Your task to perform on an android device: Search for "razer deathadder" on newegg.com, select the first entry, and add it to the cart. Image 0: 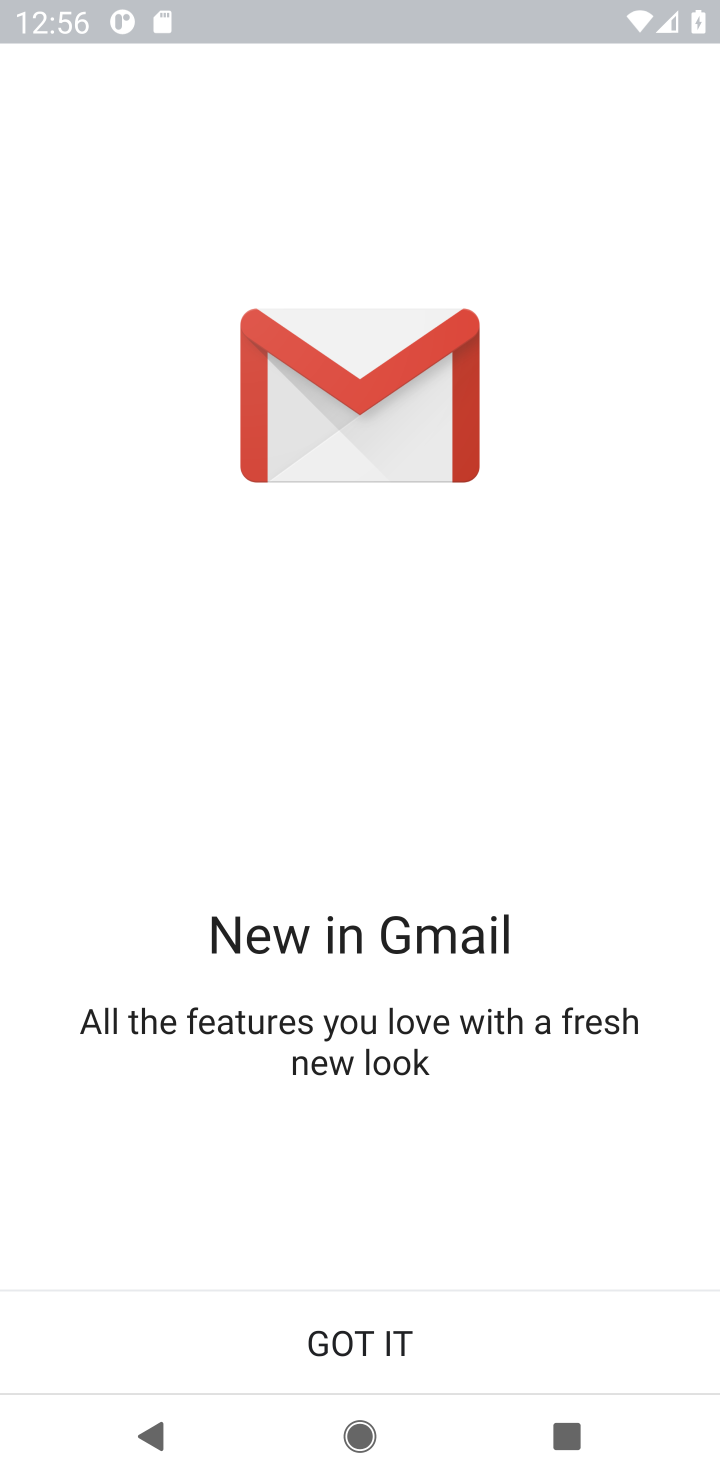
Step 0: press home button
Your task to perform on an android device: Search for "razer deathadder" on newegg.com, select the first entry, and add it to the cart. Image 1: 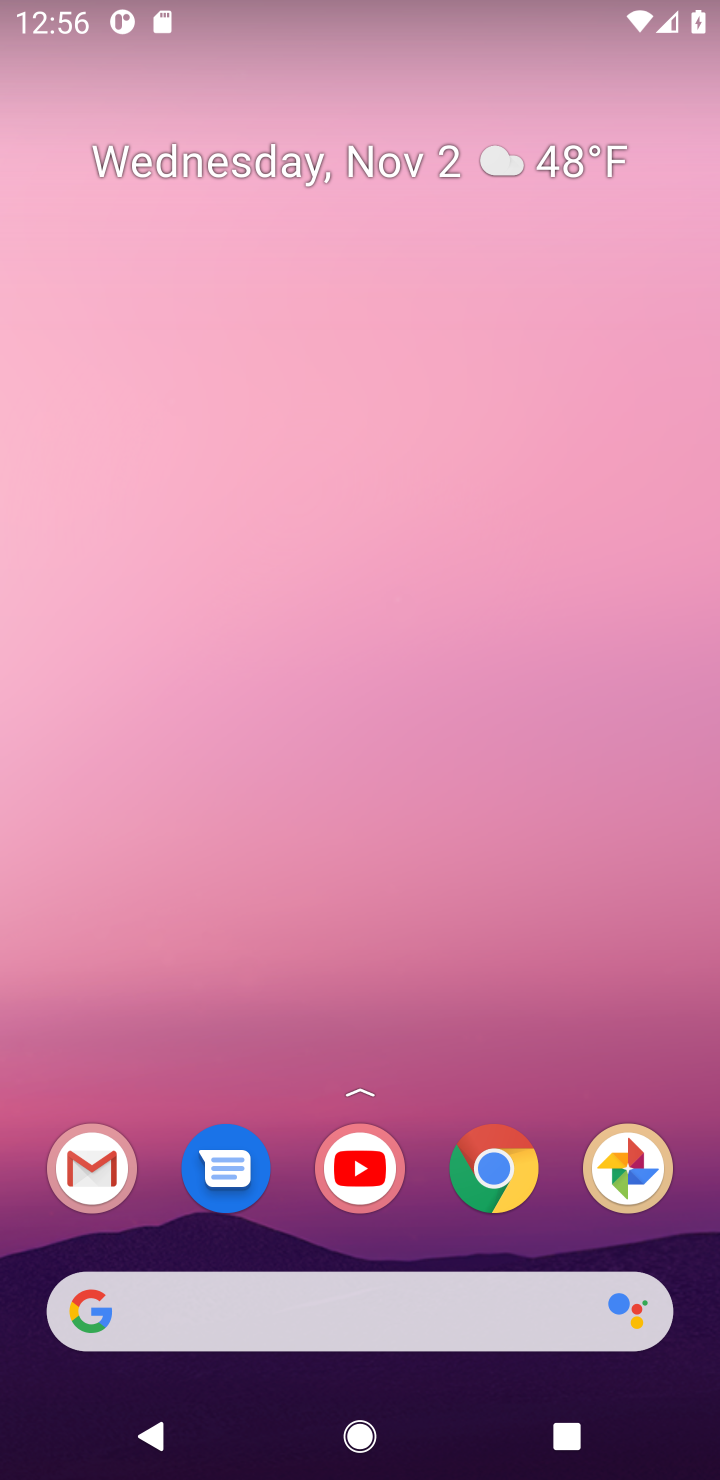
Step 1: click (281, 1296)
Your task to perform on an android device: Search for "razer deathadder" on newegg.com, select the first entry, and add it to the cart. Image 2: 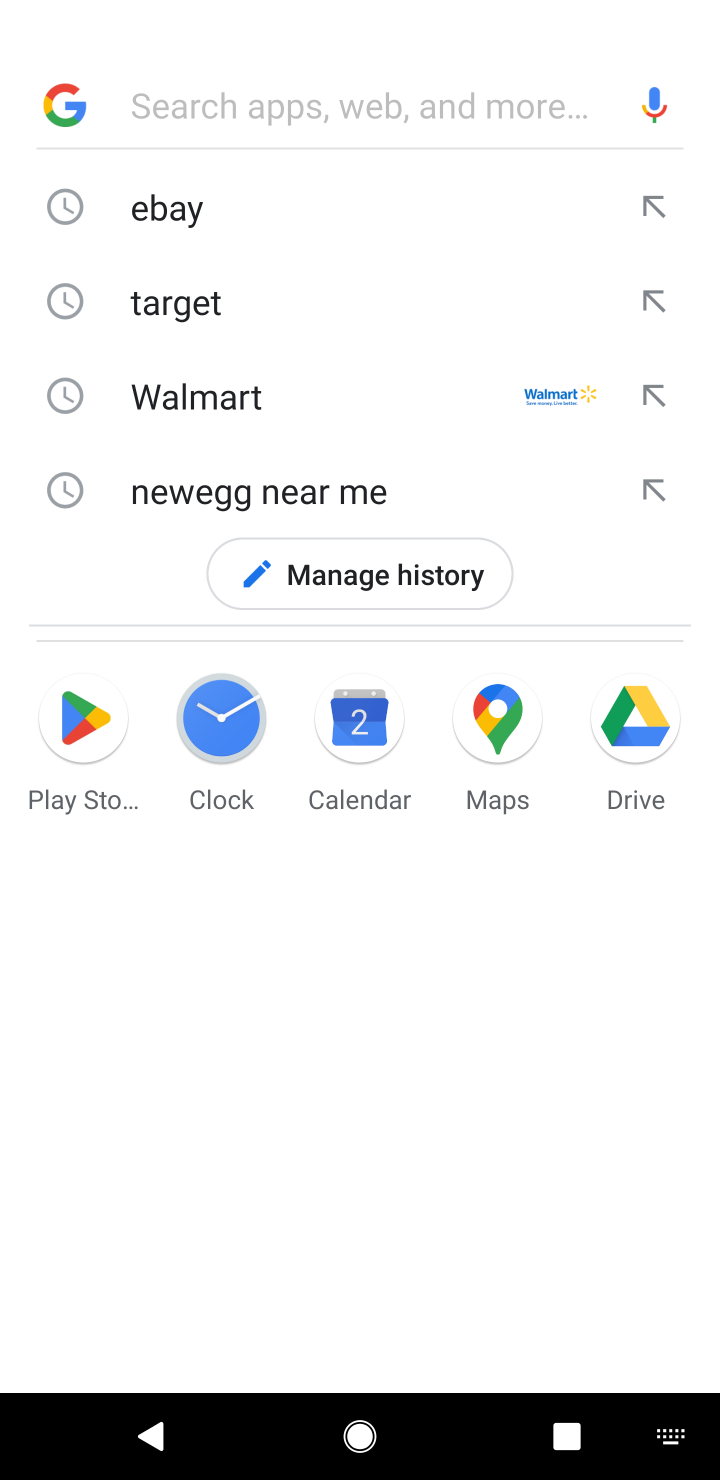
Step 2: type "newegg.com"
Your task to perform on an android device: Search for "razer deathadder" on newegg.com, select the first entry, and add it to the cart. Image 3: 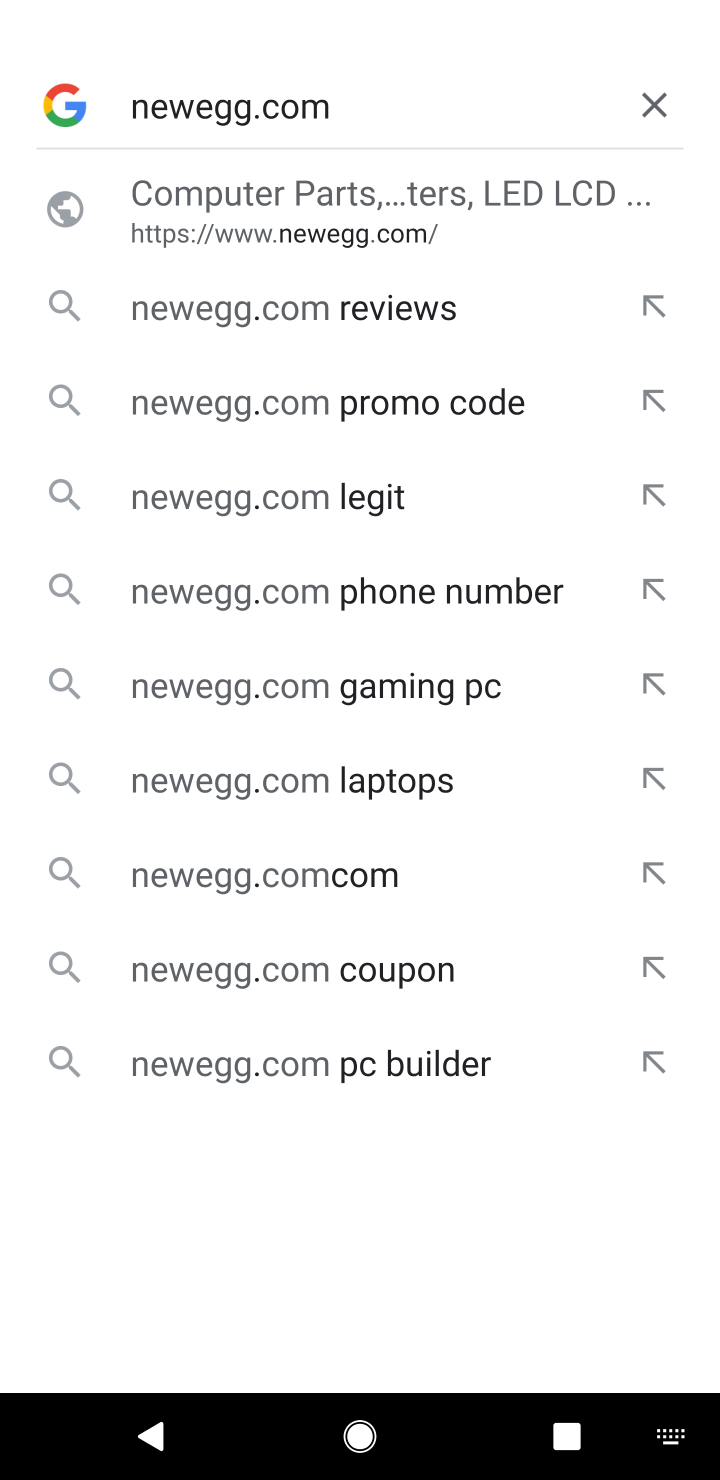
Step 3: click (350, 194)
Your task to perform on an android device: Search for "razer deathadder" on newegg.com, select the first entry, and add it to the cart. Image 4: 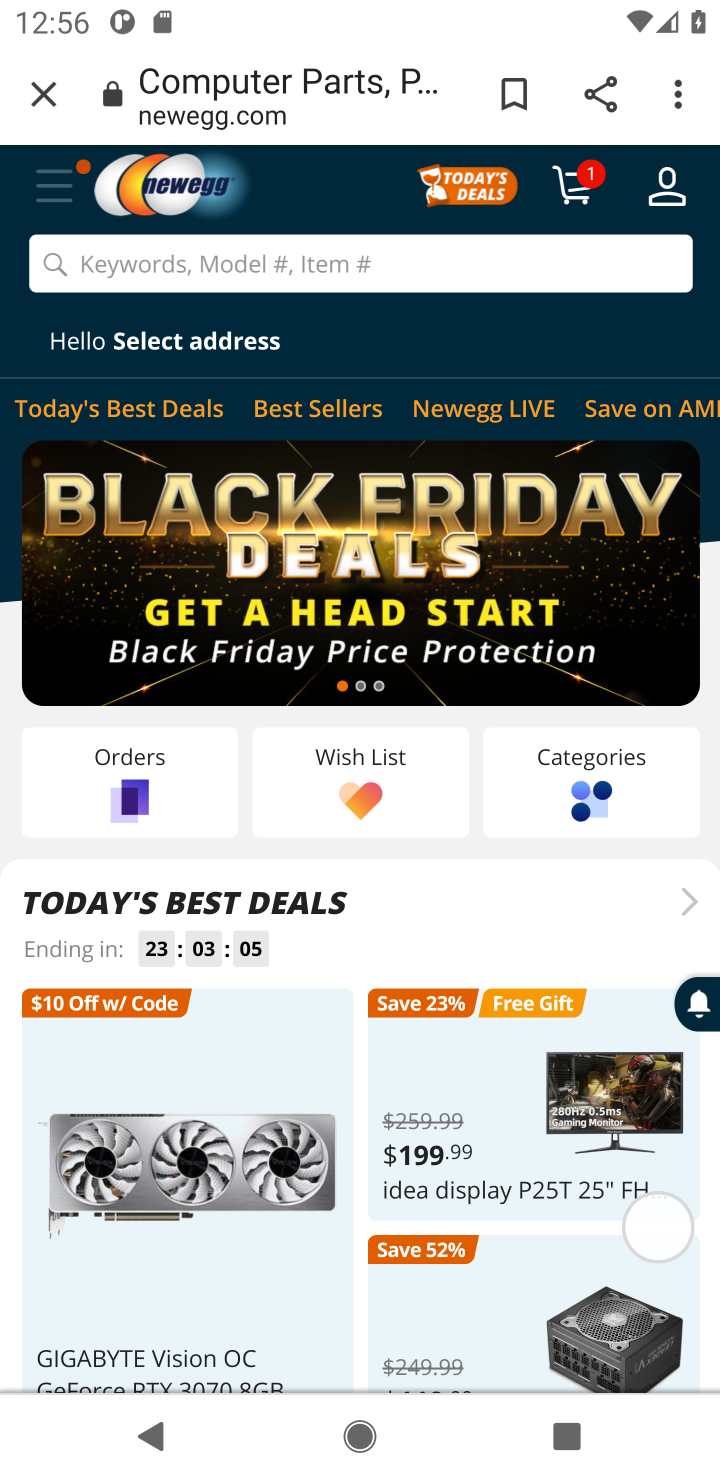
Step 4: click (200, 266)
Your task to perform on an android device: Search for "razer deathadder" on newegg.com, select the first entry, and add it to the cart. Image 5: 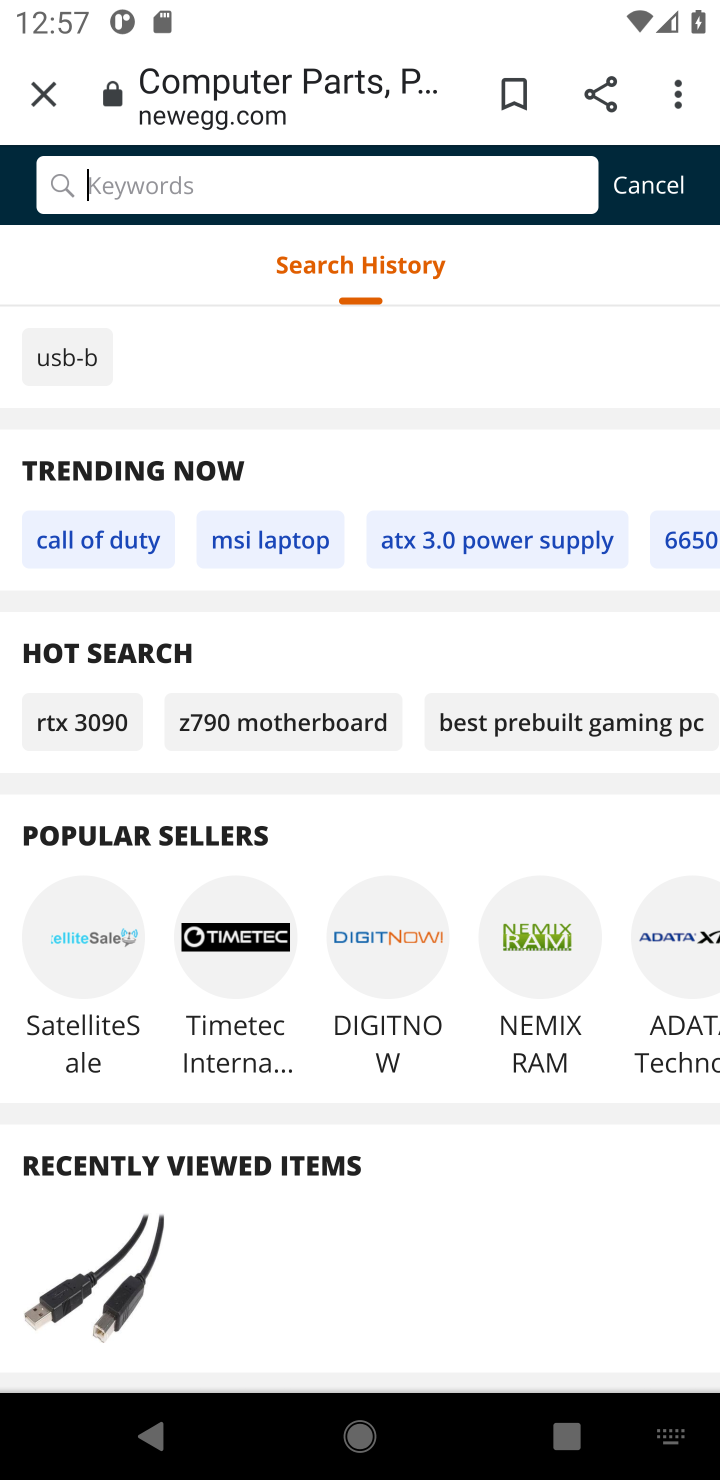
Step 5: type "razer deathadder"
Your task to perform on an android device: Search for "razer deathadder" on newegg.com, select the first entry, and add it to the cart. Image 6: 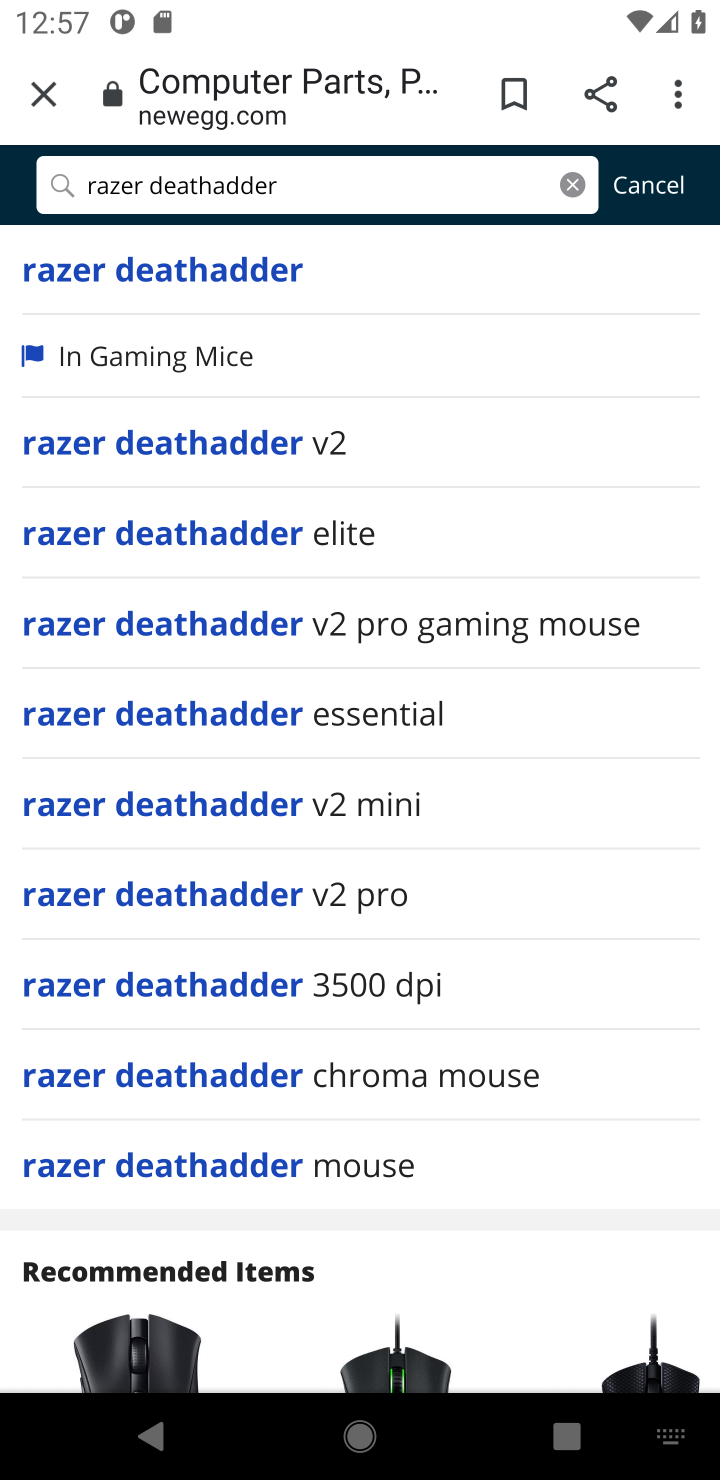
Step 6: click (255, 275)
Your task to perform on an android device: Search for "razer deathadder" on newegg.com, select the first entry, and add it to the cart. Image 7: 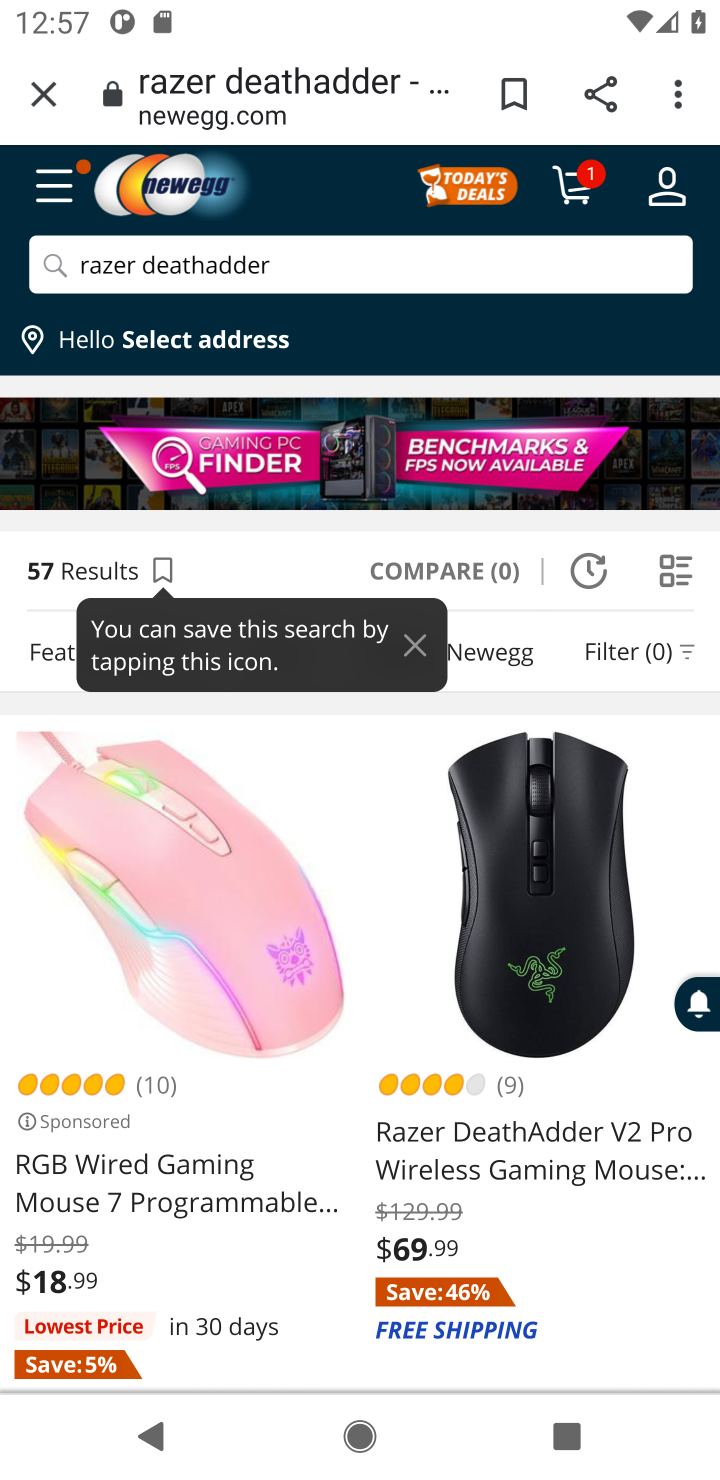
Step 7: click (160, 928)
Your task to perform on an android device: Search for "razer deathadder" on newegg.com, select the first entry, and add it to the cart. Image 8: 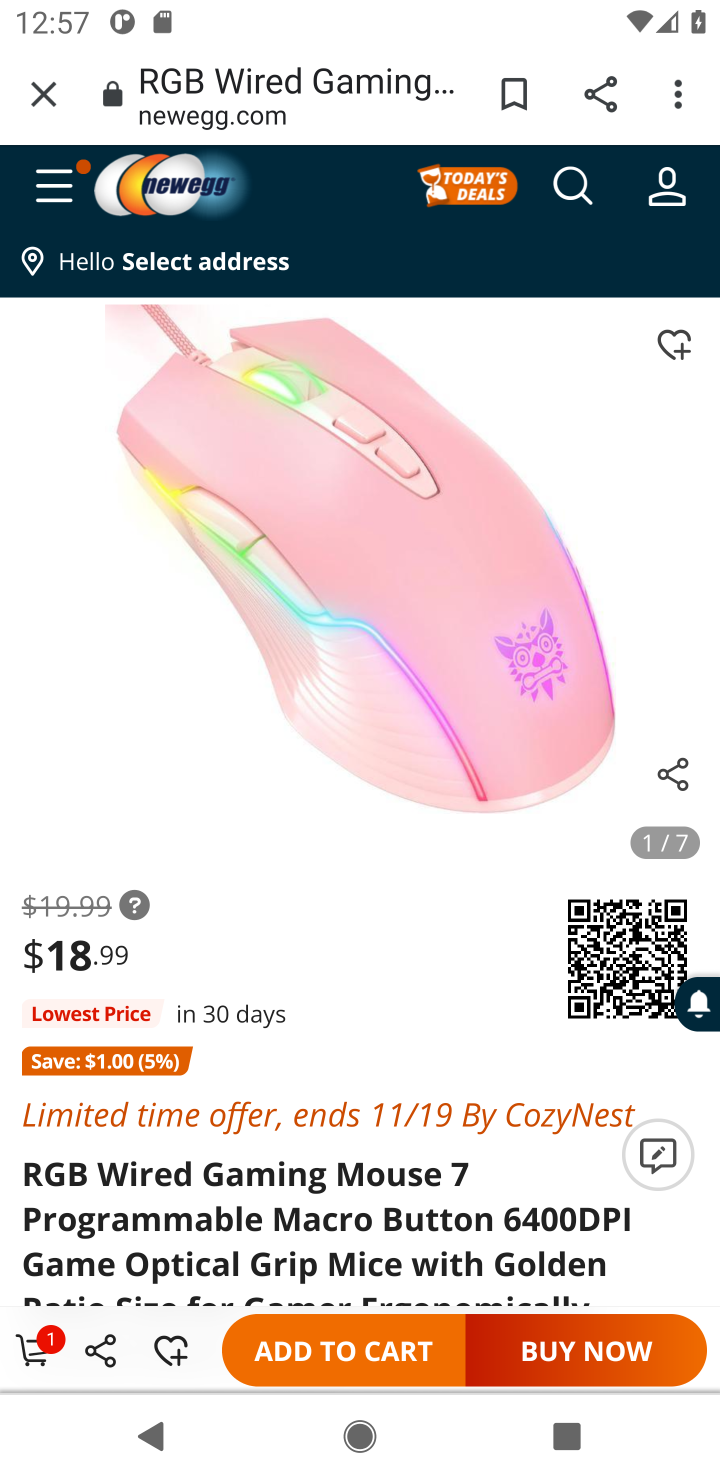
Step 8: click (295, 1349)
Your task to perform on an android device: Search for "razer deathadder" on newegg.com, select the first entry, and add it to the cart. Image 9: 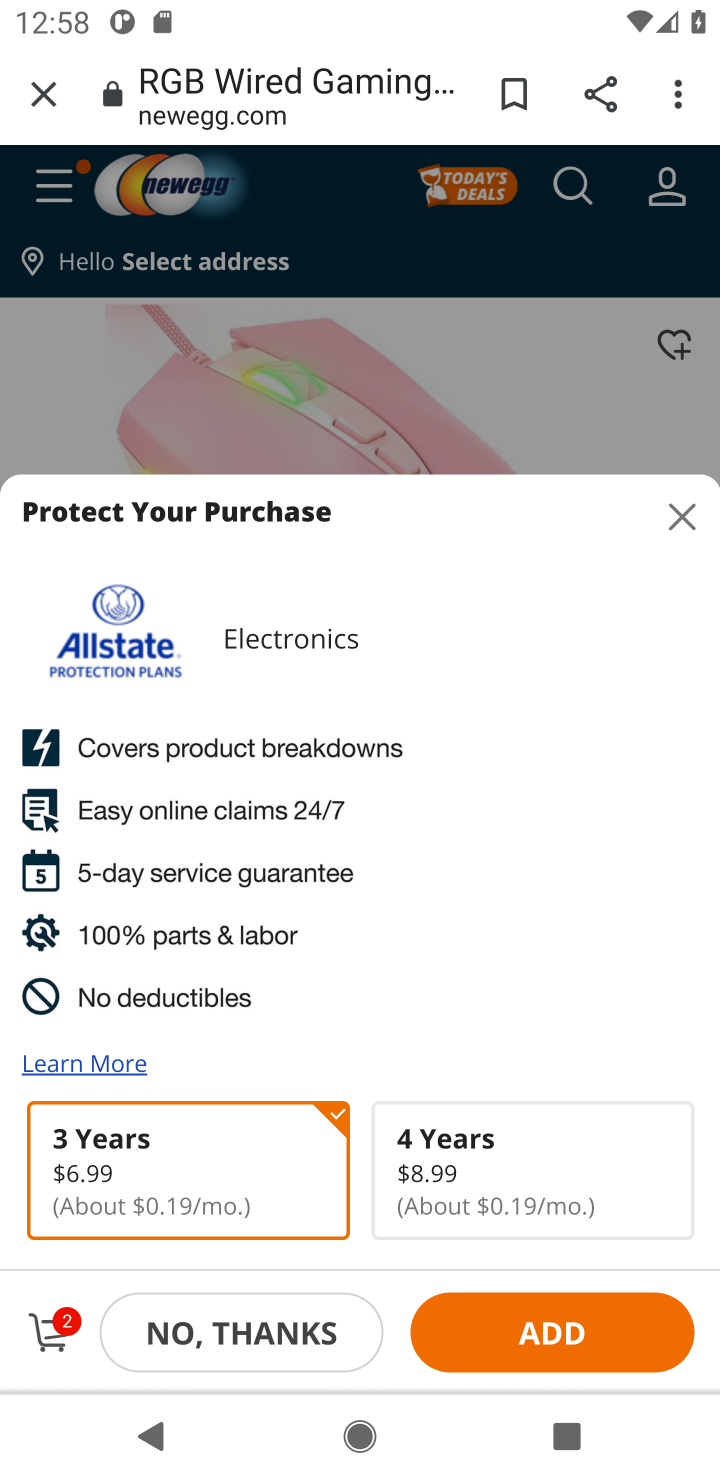
Step 9: click (278, 1329)
Your task to perform on an android device: Search for "razer deathadder" on newegg.com, select the first entry, and add it to the cart. Image 10: 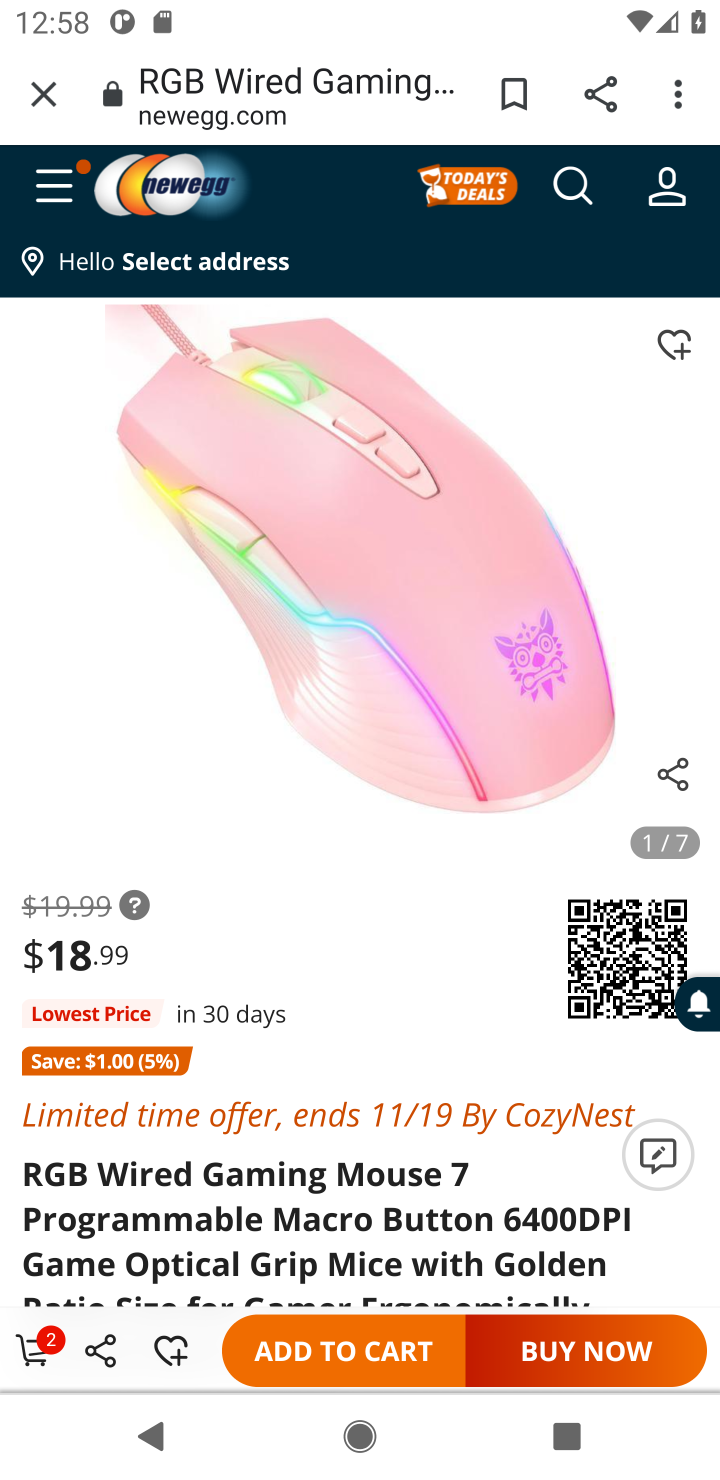
Step 10: task complete